Your task to perform on an android device: Open ESPN.com Image 0: 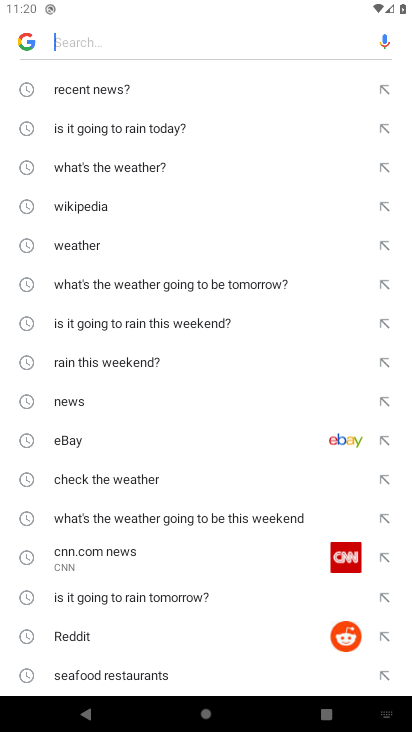
Step 0: press home button
Your task to perform on an android device: Open ESPN.com Image 1: 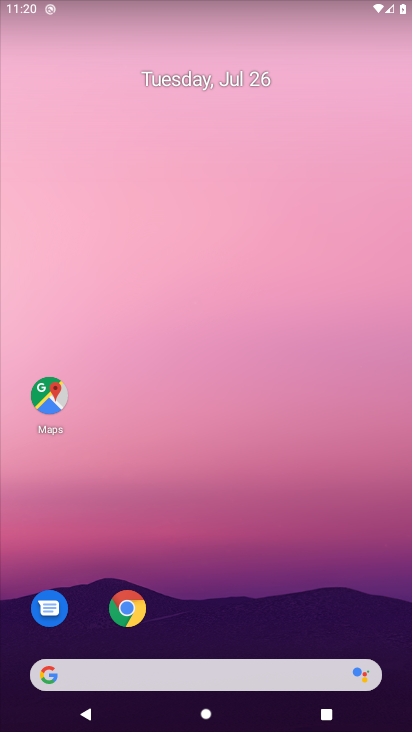
Step 1: click (44, 674)
Your task to perform on an android device: Open ESPN.com Image 2: 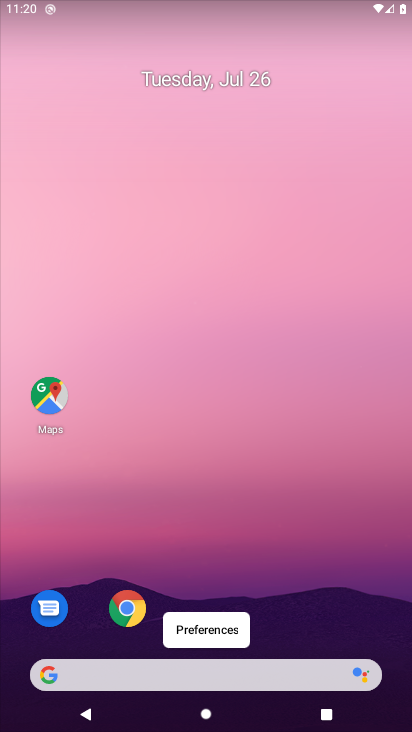
Step 2: click (50, 670)
Your task to perform on an android device: Open ESPN.com Image 3: 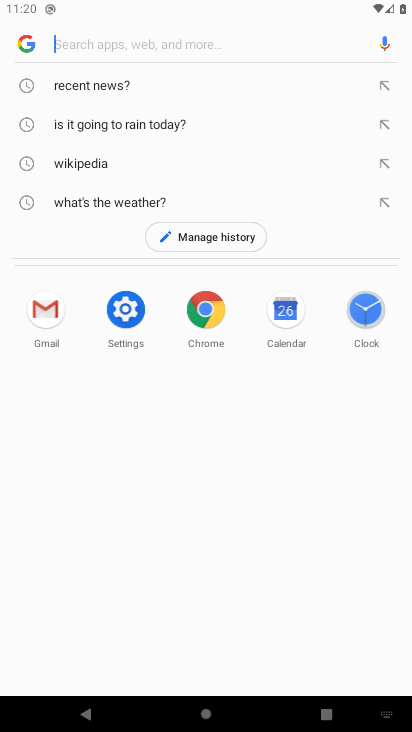
Step 3: type "ESPN.com"
Your task to perform on an android device: Open ESPN.com Image 4: 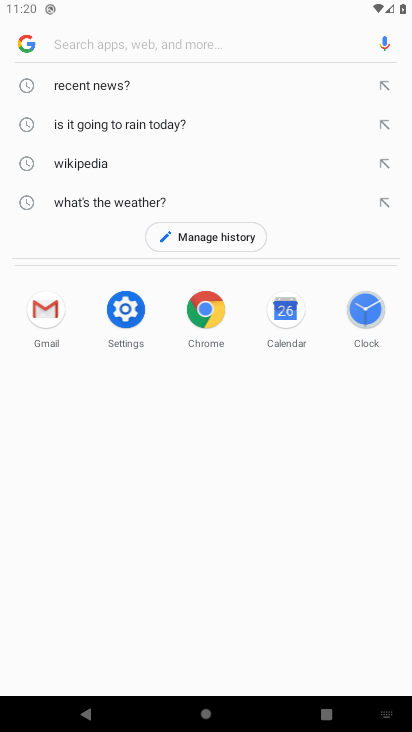
Step 4: click (91, 44)
Your task to perform on an android device: Open ESPN.com Image 5: 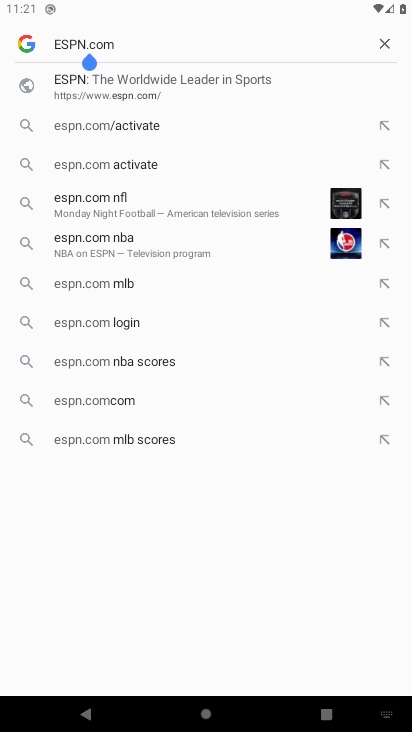
Step 5: press enter
Your task to perform on an android device: Open ESPN.com Image 6: 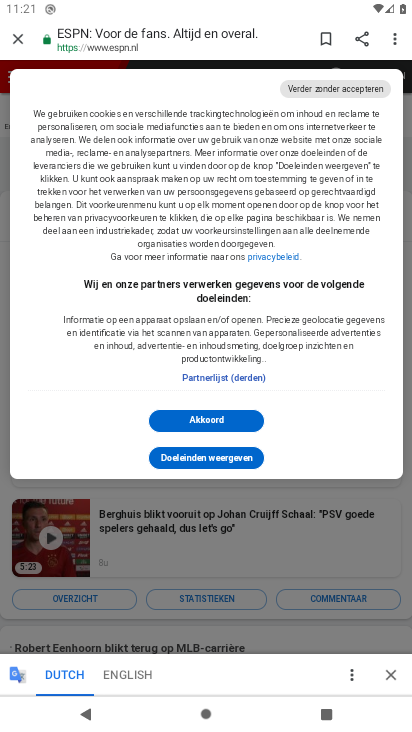
Step 6: click (217, 423)
Your task to perform on an android device: Open ESPN.com Image 7: 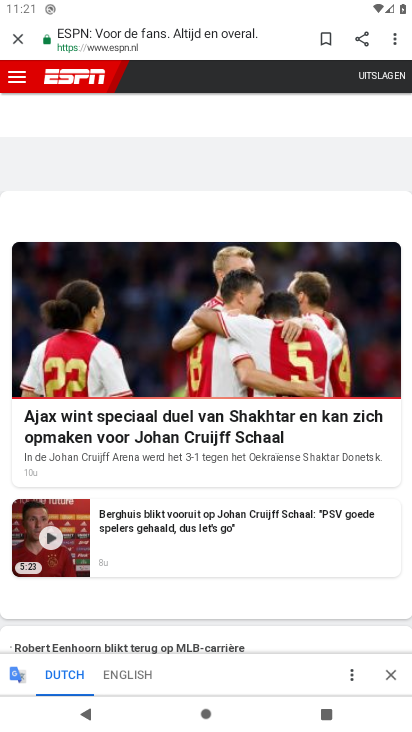
Step 7: task complete